Your task to perform on an android device: open app "Google Keep" (install if not already installed) Image 0: 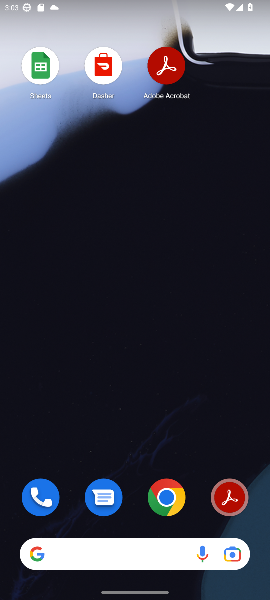
Step 0: press home button
Your task to perform on an android device: open app "Google Keep" (install if not already installed) Image 1: 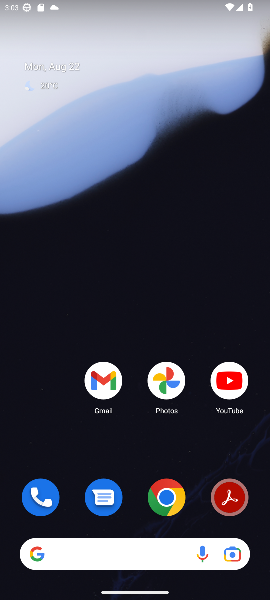
Step 1: drag from (47, 445) to (54, 78)
Your task to perform on an android device: open app "Google Keep" (install if not already installed) Image 2: 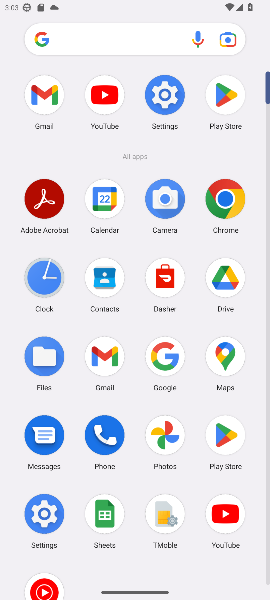
Step 2: click (222, 436)
Your task to perform on an android device: open app "Google Keep" (install if not already installed) Image 3: 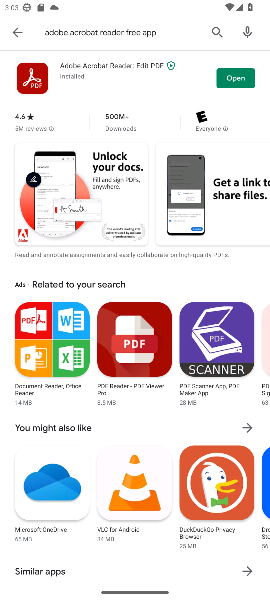
Step 3: click (11, 29)
Your task to perform on an android device: open app "Google Keep" (install if not already installed) Image 4: 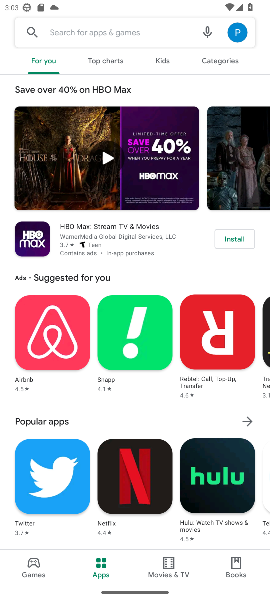
Step 4: click (119, 29)
Your task to perform on an android device: open app "Google Keep" (install if not already installed) Image 5: 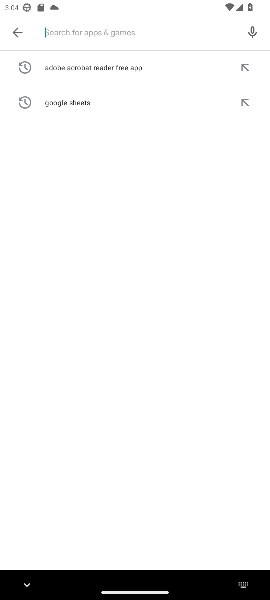
Step 5: type "Google Keep"
Your task to perform on an android device: open app "Google Keep" (install if not already installed) Image 6: 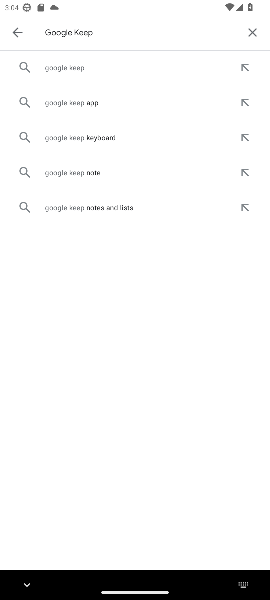
Step 6: click (72, 68)
Your task to perform on an android device: open app "Google Keep" (install if not already installed) Image 7: 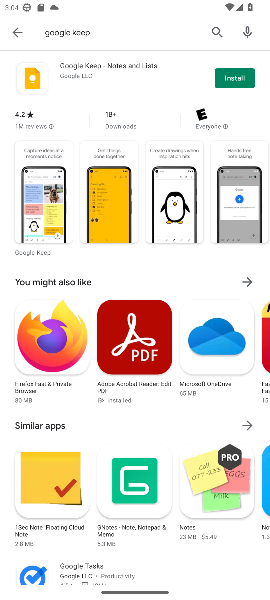
Step 7: click (233, 75)
Your task to perform on an android device: open app "Google Keep" (install if not already installed) Image 8: 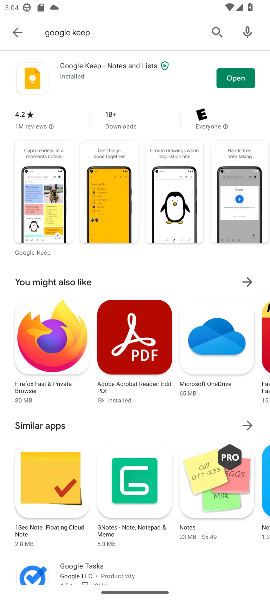
Step 8: click (233, 79)
Your task to perform on an android device: open app "Google Keep" (install if not already installed) Image 9: 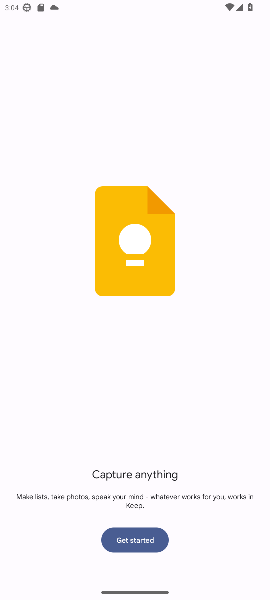
Step 9: task complete